Your task to perform on an android device: toggle notification dots Image 0: 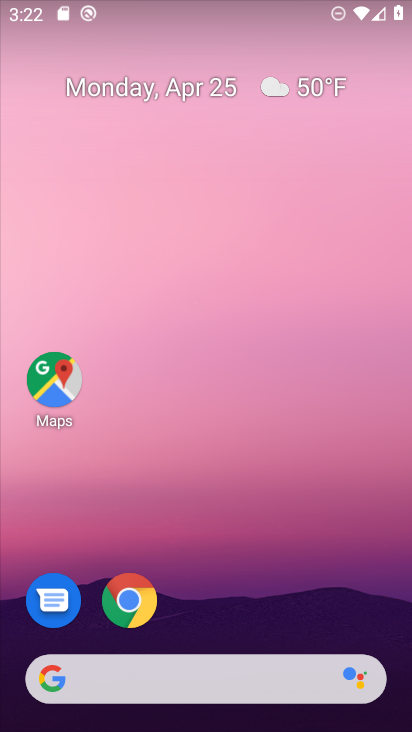
Step 0: drag from (218, 608) to (237, 3)
Your task to perform on an android device: toggle notification dots Image 1: 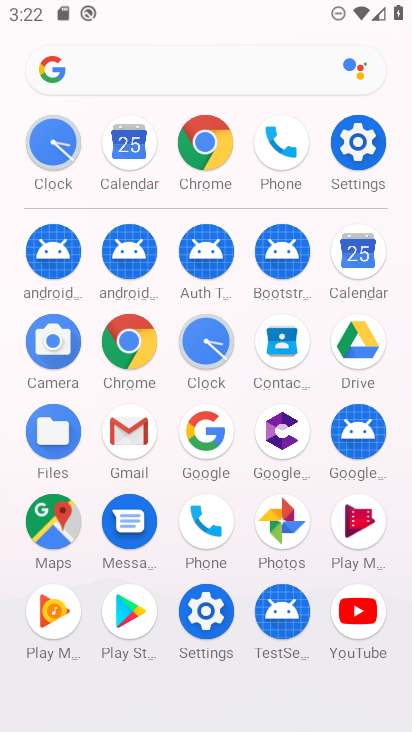
Step 1: click (362, 137)
Your task to perform on an android device: toggle notification dots Image 2: 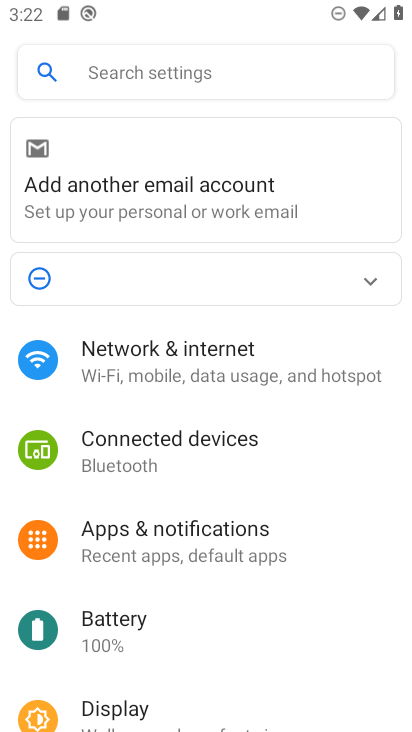
Step 2: click (173, 563)
Your task to perform on an android device: toggle notification dots Image 3: 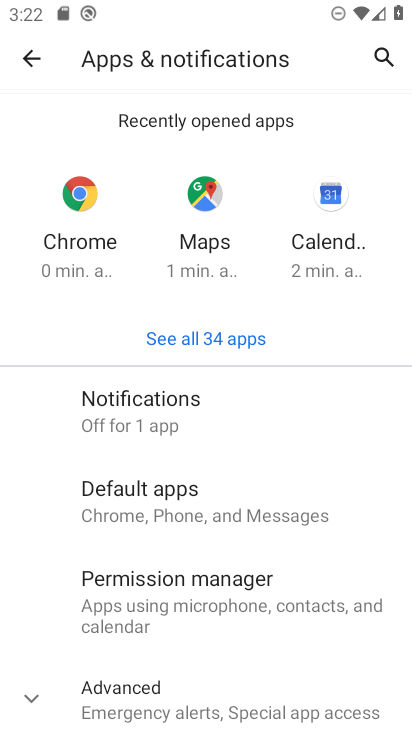
Step 3: click (192, 407)
Your task to perform on an android device: toggle notification dots Image 4: 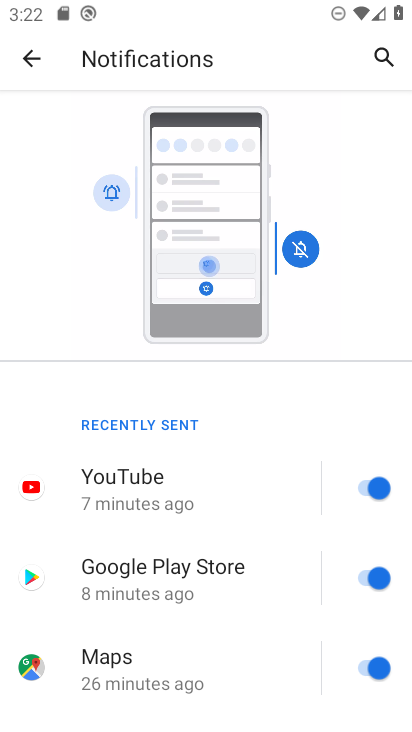
Step 4: drag from (192, 574) to (124, 127)
Your task to perform on an android device: toggle notification dots Image 5: 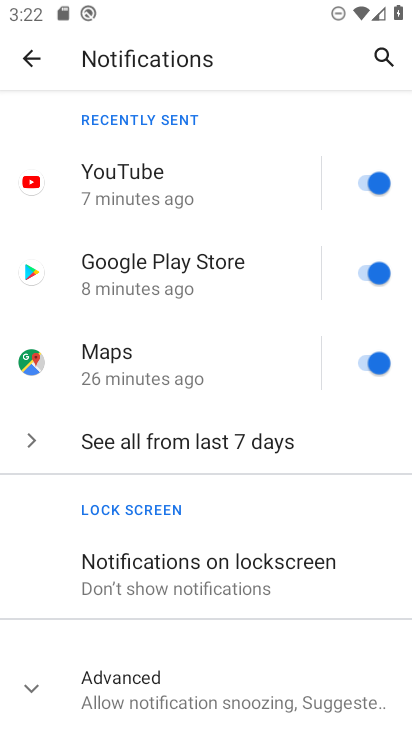
Step 5: click (216, 678)
Your task to perform on an android device: toggle notification dots Image 6: 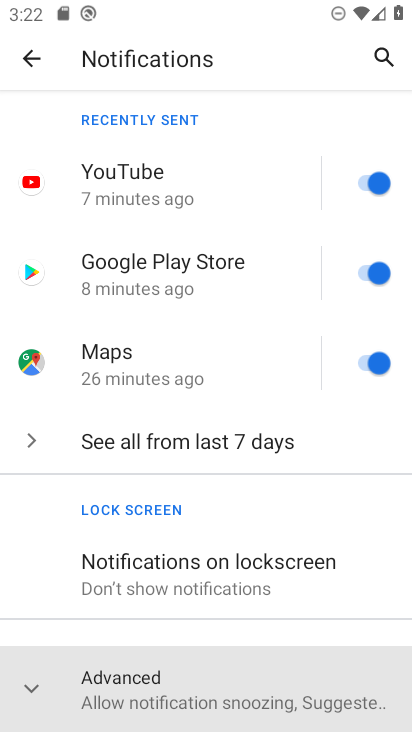
Step 6: drag from (236, 596) to (184, 125)
Your task to perform on an android device: toggle notification dots Image 7: 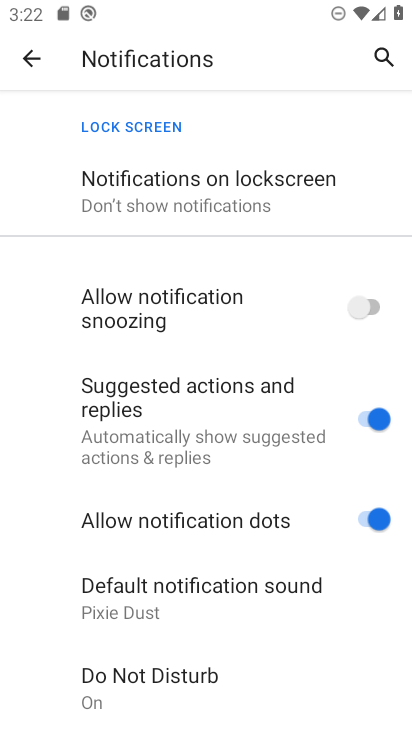
Step 7: click (358, 519)
Your task to perform on an android device: toggle notification dots Image 8: 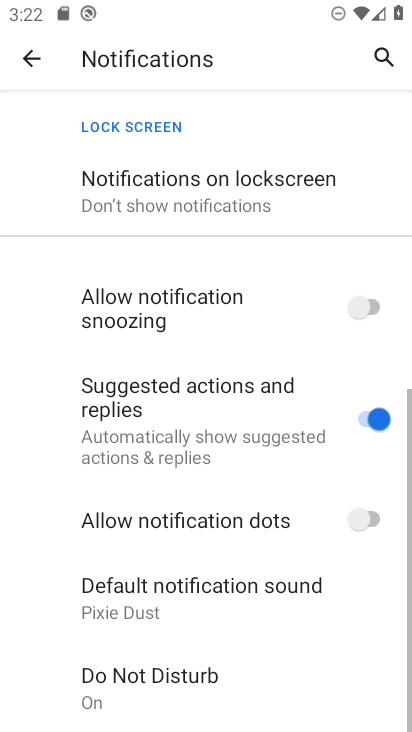
Step 8: task complete